Your task to perform on an android device: turn off wifi Image 0: 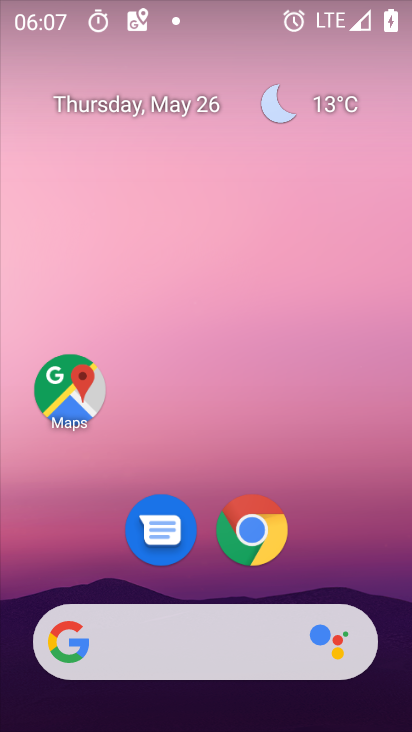
Step 0: drag from (346, 100) to (336, 21)
Your task to perform on an android device: turn off wifi Image 1: 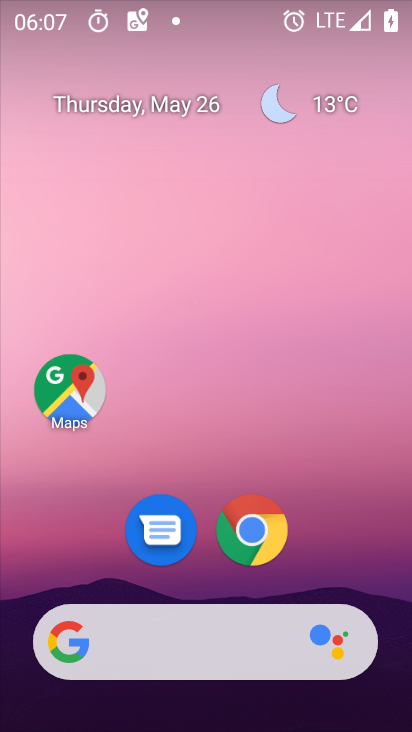
Step 1: drag from (264, 609) to (264, 6)
Your task to perform on an android device: turn off wifi Image 2: 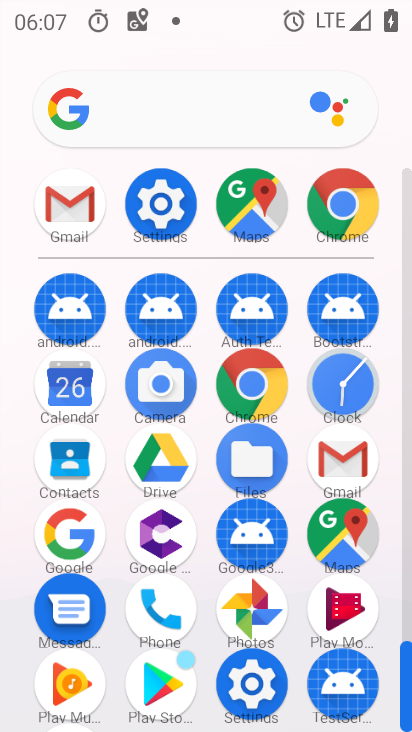
Step 2: click (144, 183)
Your task to perform on an android device: turn off wifi Image 3: 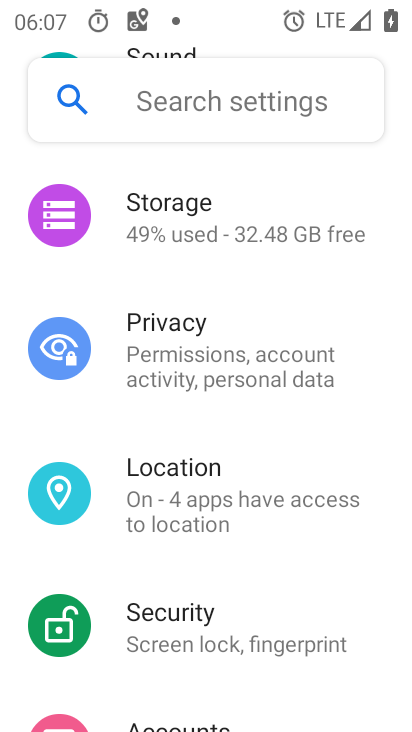
Step 3: drag from (165, 212) to (333, 728)
Your task to perform on an android device: turn off wifi Image 4: 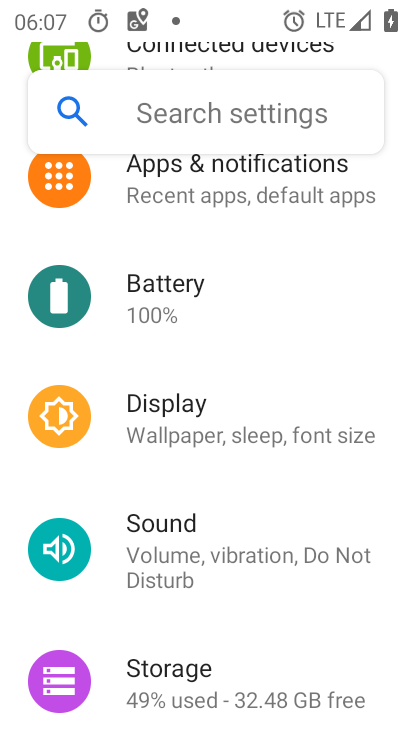
Step 4: drag from (278, 281) to (273, 725)
Your task to perform on an android device: turn off wifi Image 5: 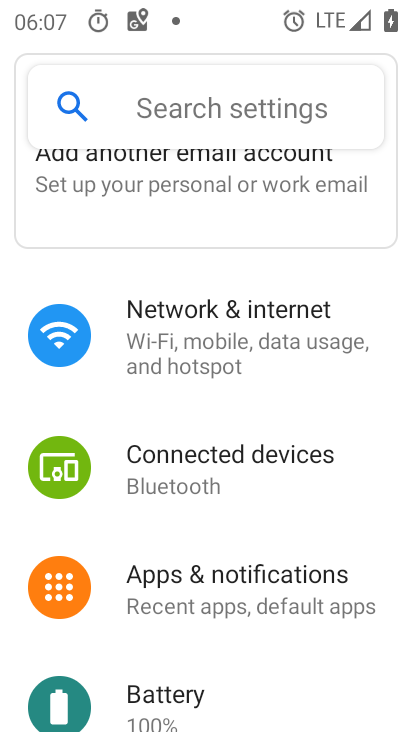
Step 5: click (267, 358)
Your task to perform on an android device: turn off wifi Image 6: 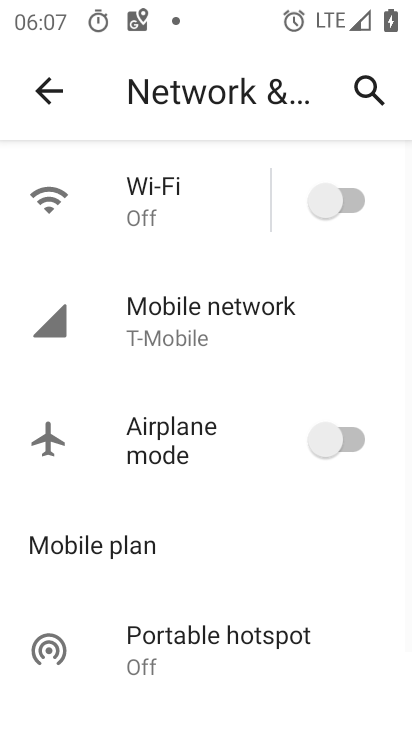
Step 6: task complete